Your task to perform on an android device: Go to Google maps Image 0: 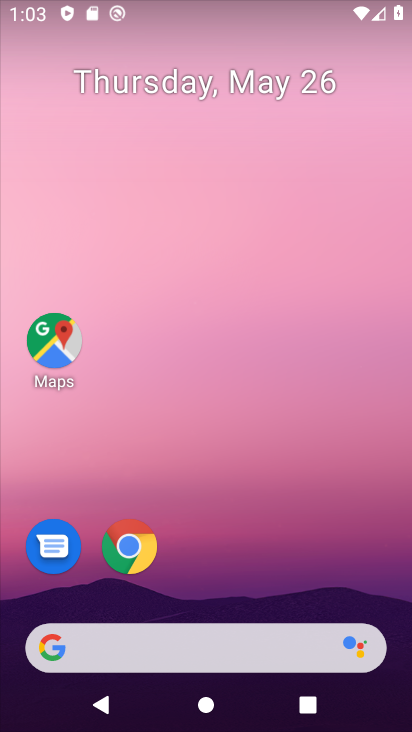
Step 0: click (68, 346)
Your task to perform on an android device: Go to Google maps Image 1: 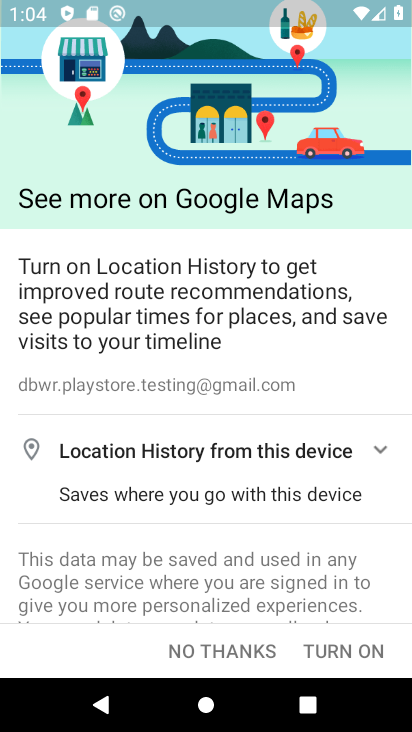
Step 1: press home button
Your task to perform on an android device: Go to Google maps Image 2: 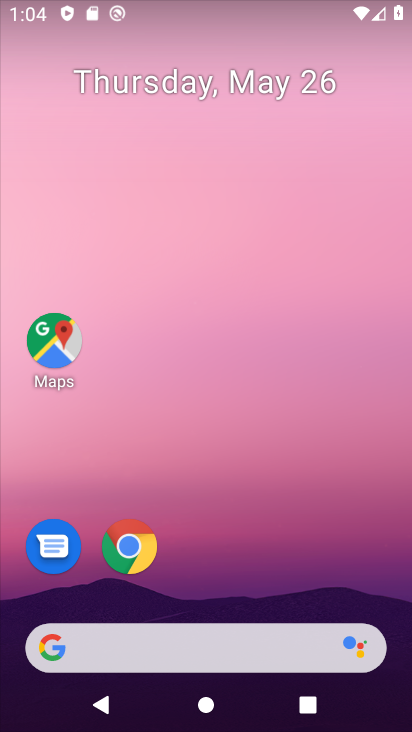
Step 2: click (51, 336)
Your task to perform on an android device: Go to Google maps Image 3: 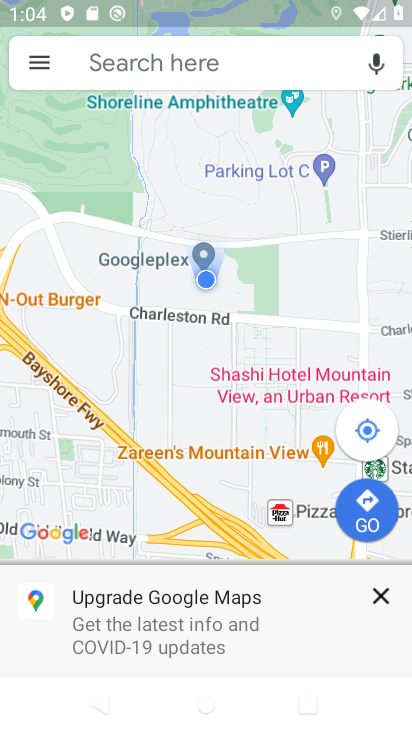
Step 3: task complete